Your task to perform on an android device: toggle notification dots Image 0: 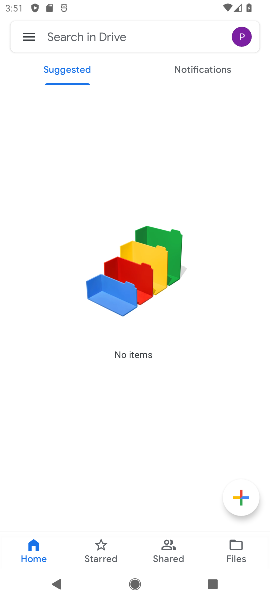
Step 0: press home button
Your task to perform on an android device: toggle notification dots Image 1: 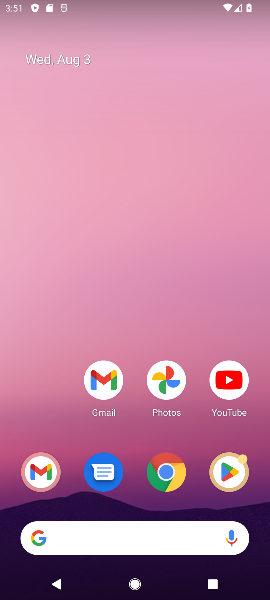
Step 1: drag from (213, 541) to (81, 38)
Your task to perform on an android device: toggle notification dots Image 2: 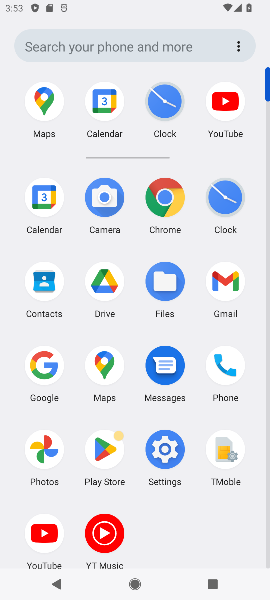
Step 2: click (174, 462)
Your task to perform on an android device: toggle notification dots Image 3: 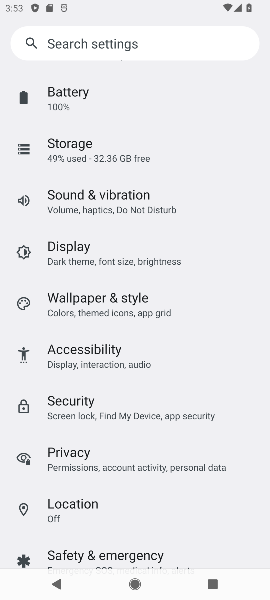
Step 3: drag from (103, 204) to (135, 489)
Your task to perform on an android device: toggle notification dots Image 4: 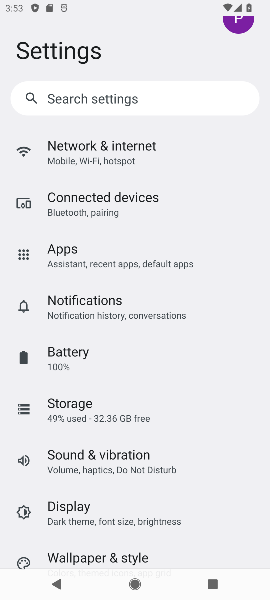
Step 4: click (71, 309)
Your task to perform on an android device: toggle notification dots Image 5: 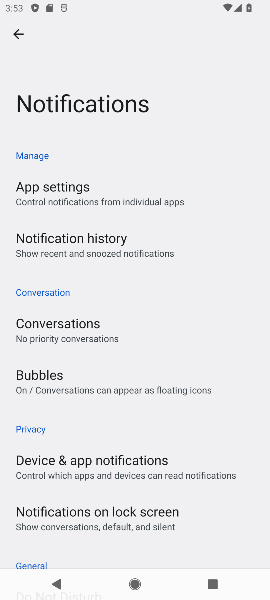
Step 5: drag from (147, 530) to (155, 296)
Your task to perform on an android device: toggle notification dots Image 6: 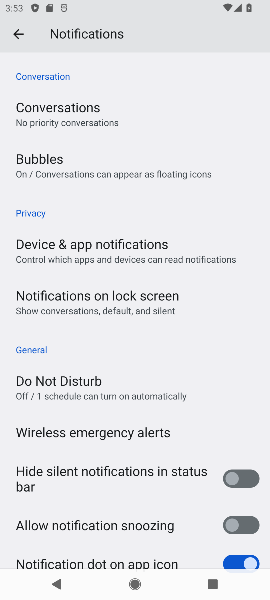
Step 6: drag from (98, 509) to (117, 320)
Your task to perform on an android device: toggle notification dots Image 7: 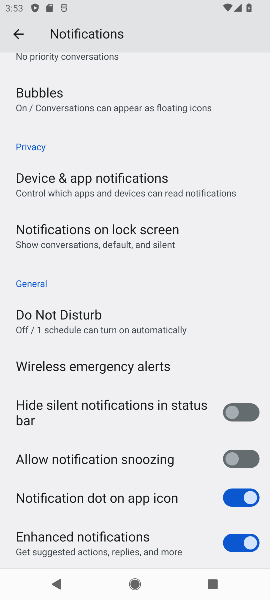
Step 7: drag from (99, 475) to (106, 268)
Your task to perform on an android device: toggle notification dots Image 8: 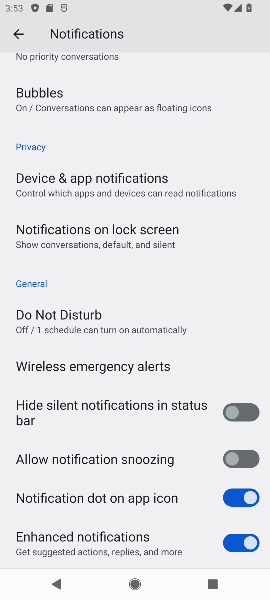
Step 8: click (199, 497)
Your task to perform on an android device: toggle notification dots Image 9: 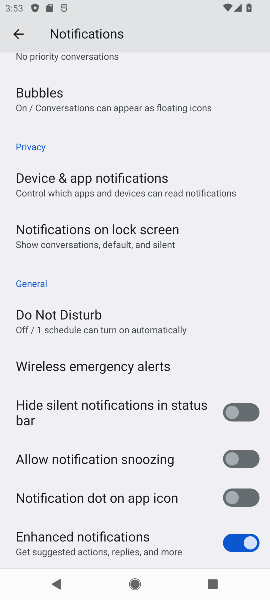
Step 9: task complete